Your task to perform on an android device: Open Youtube and go to the subscriptions tab Image 0: 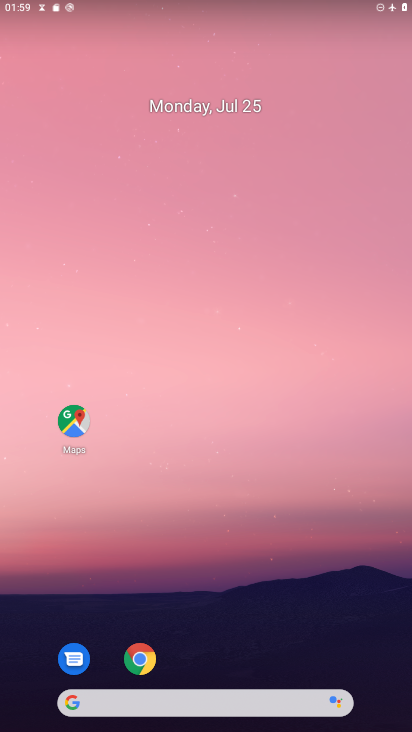
Step 0: drag from (218, 603) to (315, 64)
Your task to perform on an android device: Open Youtube and go to the subscriptions tab Image 1: 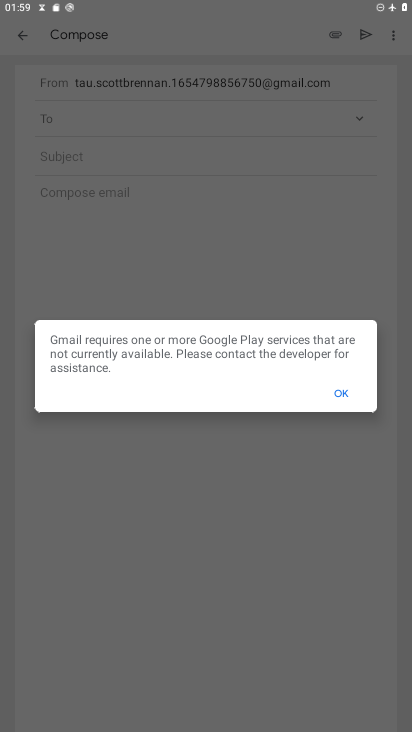
Step 1: press home button
Your task to perform on an android device: Open Youtube and go to the subscriptions tab Image 2: 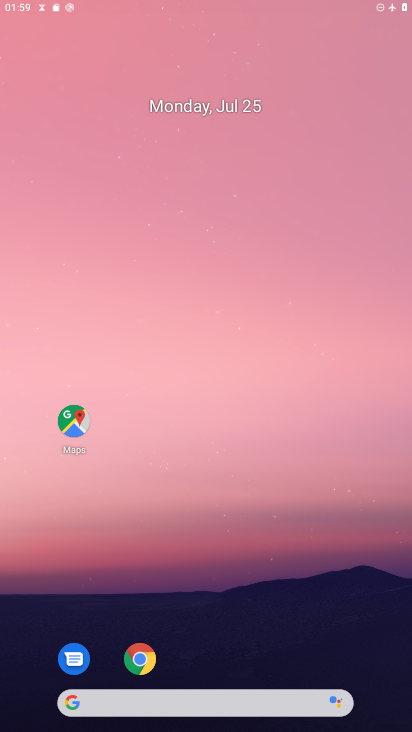
Step 2: drag from (263, 623) to (252, 52)
Your task to perform on an android device: Open Youtube and go to the subscriptions tab Image 3: 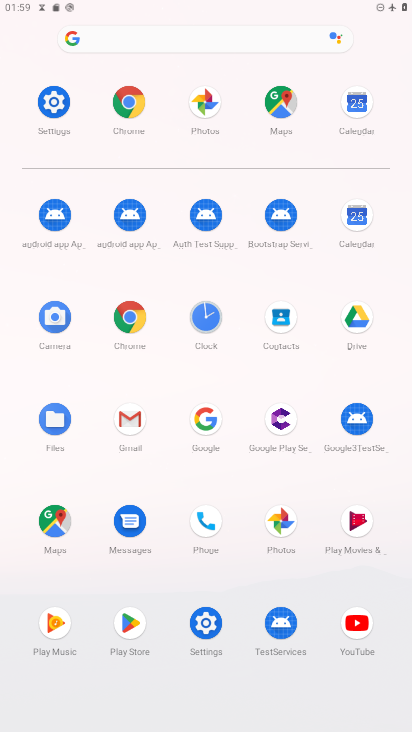
Step 3: click (363, 617)
Your task to perform on an android device: Open Youtube and go to the subscriptions tab Image 4: 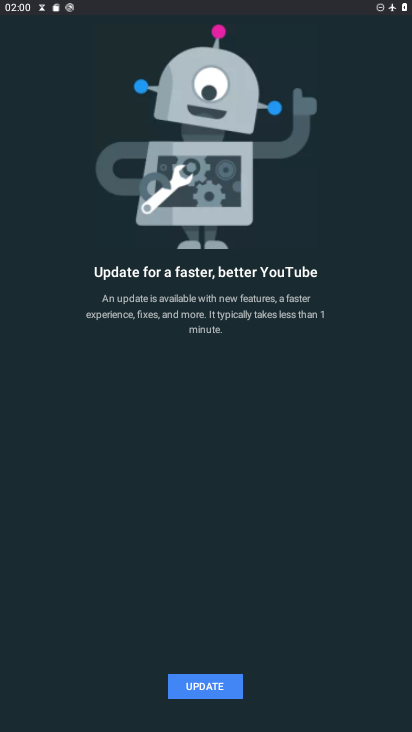
Step 4: task complete